Your task to perform on an android device: delete browsing data in the chrome app Image 0: 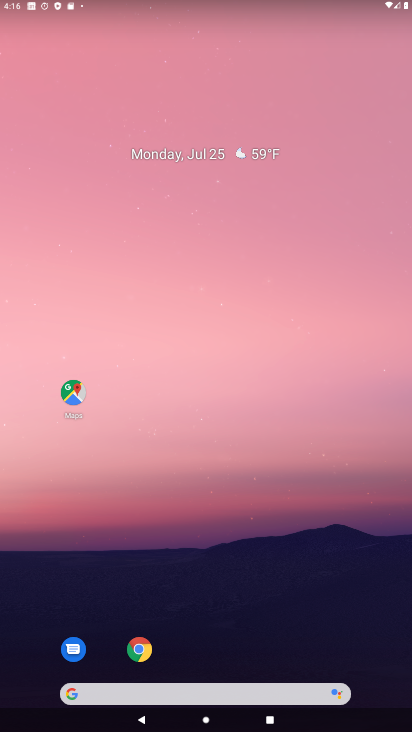
Step 0: click (140, 649)
Your task to perform on an android device: delete browsing data in the chrome app Image 1: 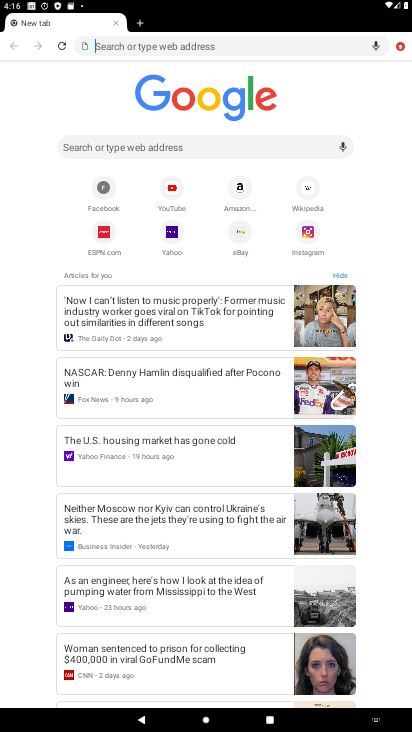
Step 1: click (407, 44)
Your task to perform on an android device: delete browsing data in the chrome app Image 2: 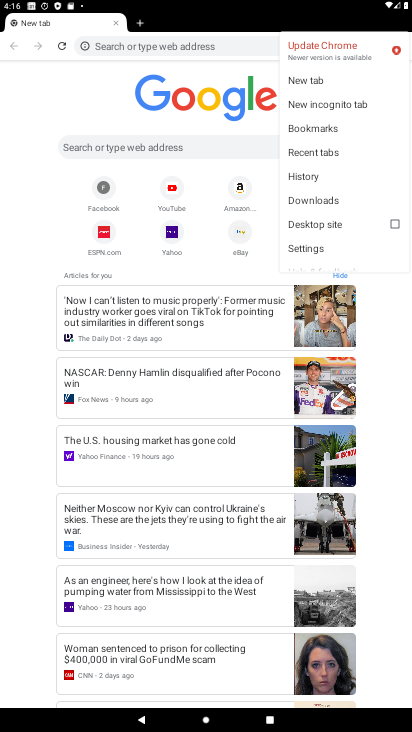
Step 2: click (333, 179)
Your task to perform on an android device: delete browsing data in the chrome app Image 3: 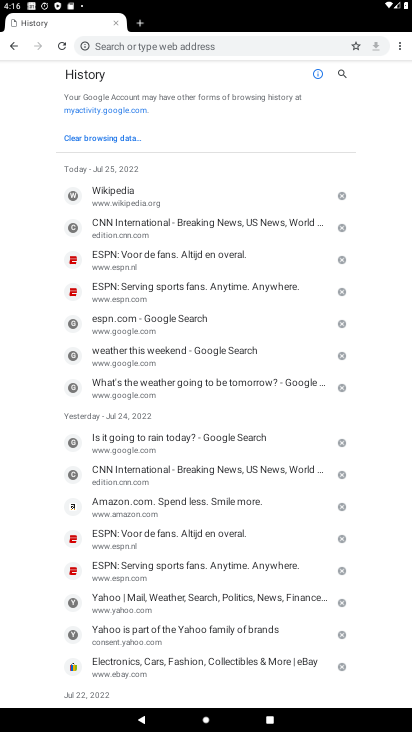
Step 3: click (101, 139)
Your task to perform on an android device: delete browsing data in the chrome app Image 4: 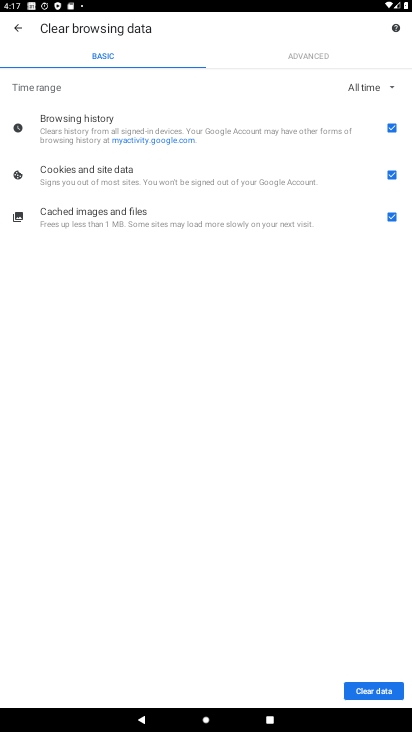
Step 4: click (396, 218)
Your task to perform on an android device: delete browsing data in the chrome app Image 5: 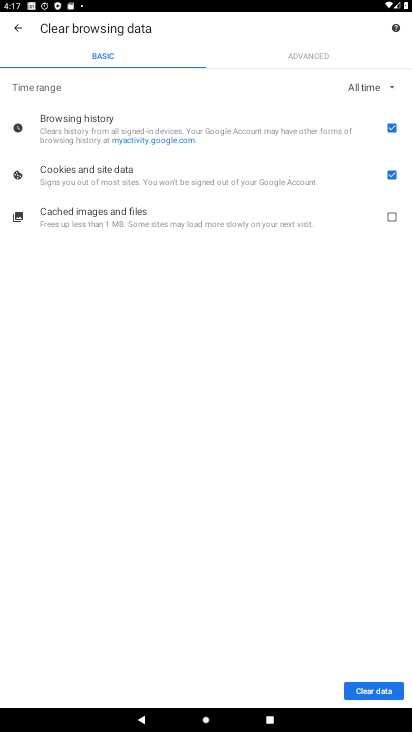
Step 5: click (390, 171)
Your task to perform on an android device: delete browsing data in the chrome app Image 6: 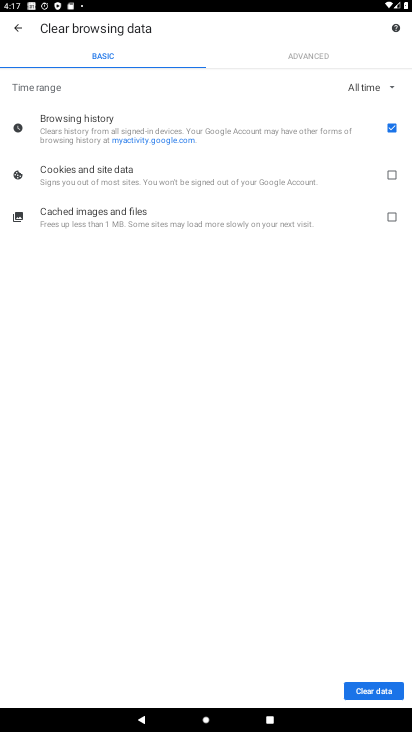
Step 6: click (387, 691)
Your task to perform on an android device: delete browsing data in the chrome app Image 7: 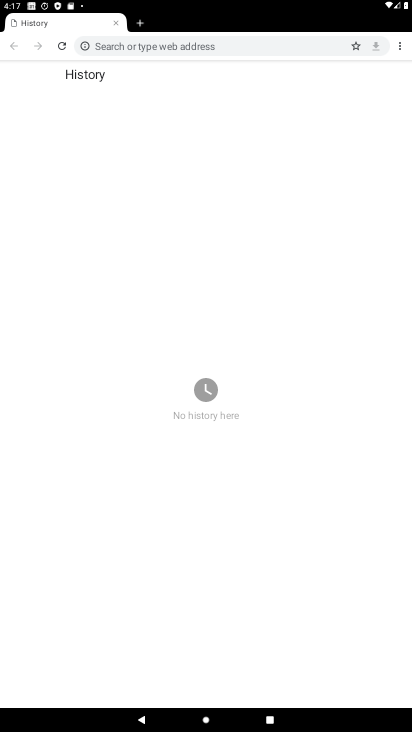
Step 7: task complete